Your task to perform on an android device: change text size in settings app Image 0: 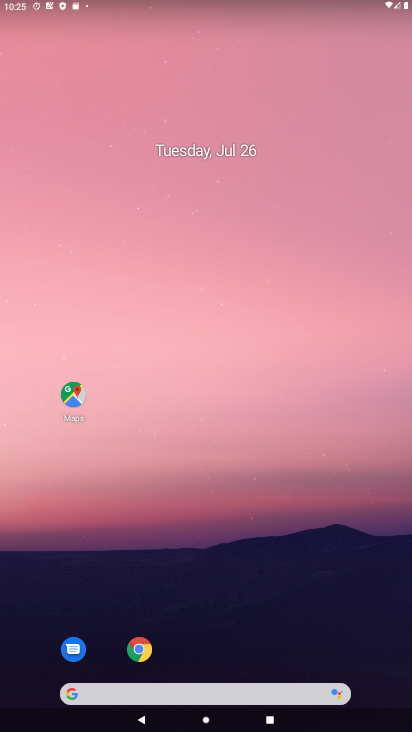
Step 0: drag from (183, 637) to (164, 128)
Your task to perform on an android device: change text size in settings app Image 1: 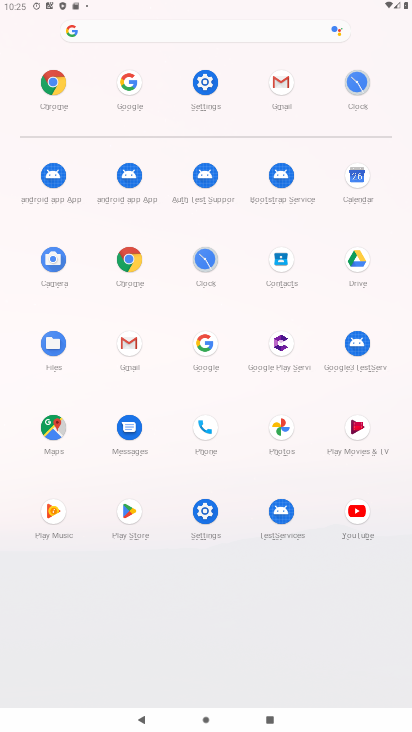
Step 1: click (212, 81)
Your task to perform on an android device: change text size in settings app Image 2: 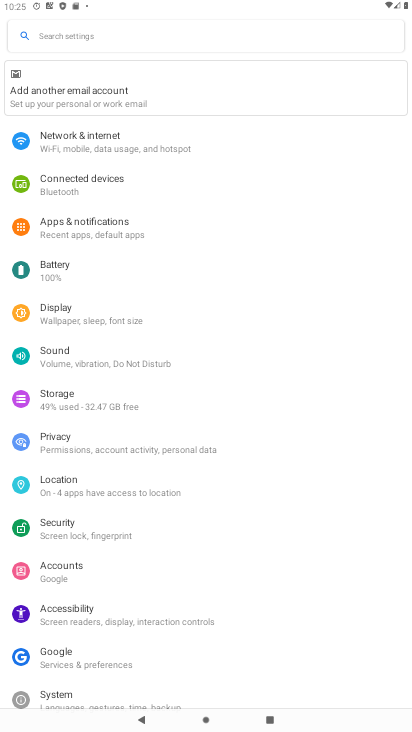
Step 2: click (83, 307)
Your task to perform on an android device: change text size in settings app Image 3: 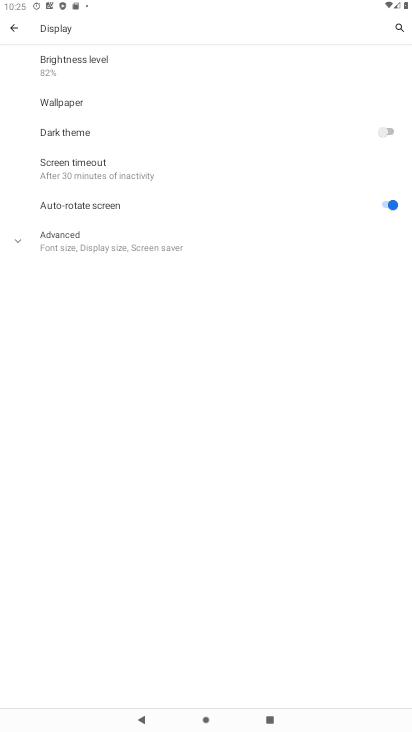
Step 3: click (135, 253)
Your task to perform on an android device: change text size in settings app Image 4: 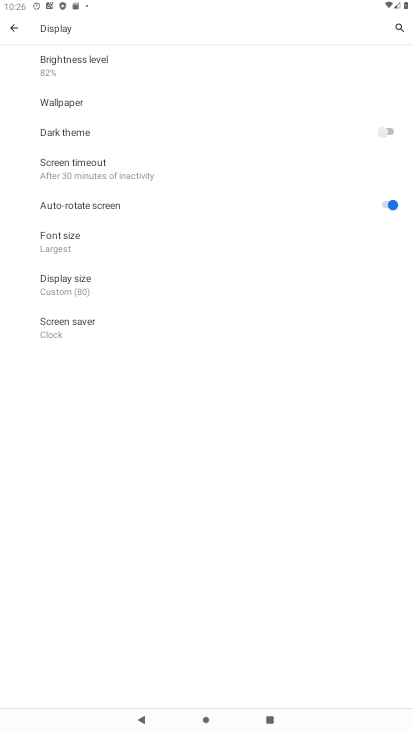
Step 4: click (83, 239)
Your task to perform on an android device: change text size in settings app Image 5: 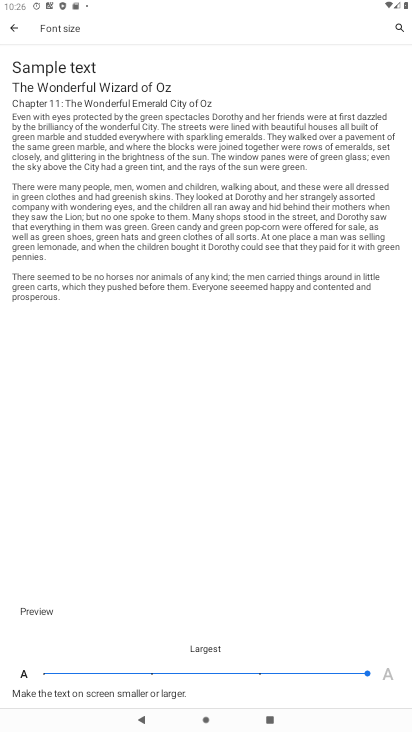
Step 5: task complete